Your task to perform on an android device: toggle pop-ups in chrome Image 0: 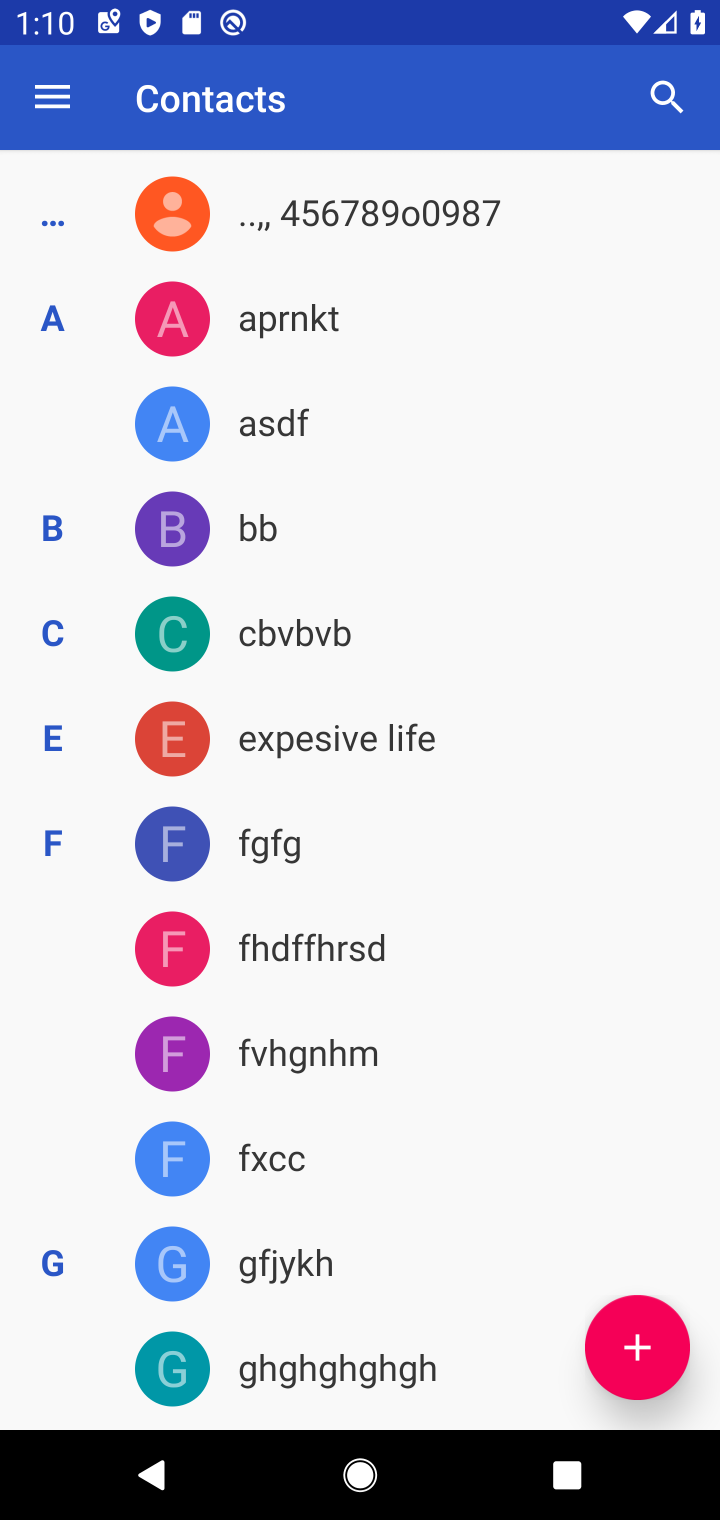
Step 0: press back button
Your task to perform on an android device: toggle pop-ups in chrome Image 1: 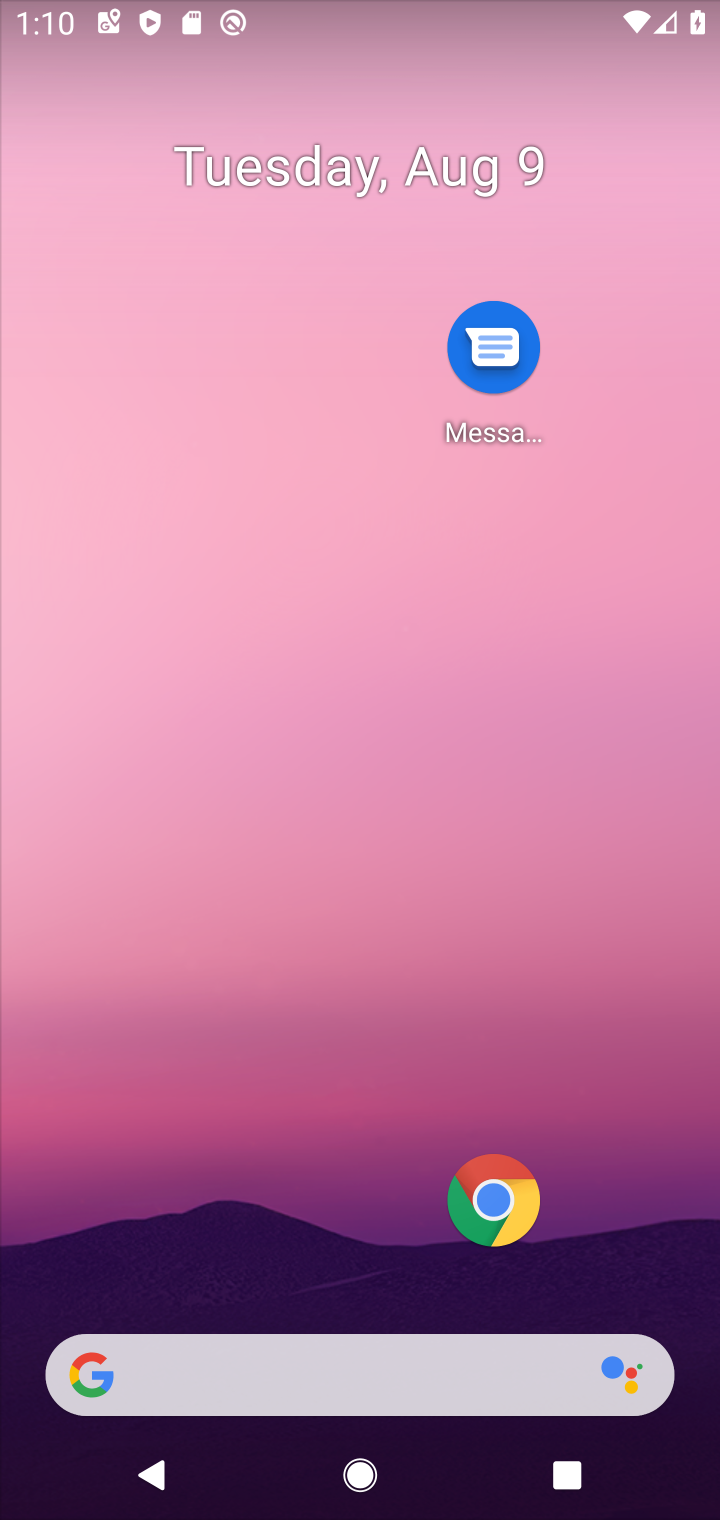
Step 1: click (509, 1226)
Your task to perform on an android device: toggle pop-ups in chrome Image 2: 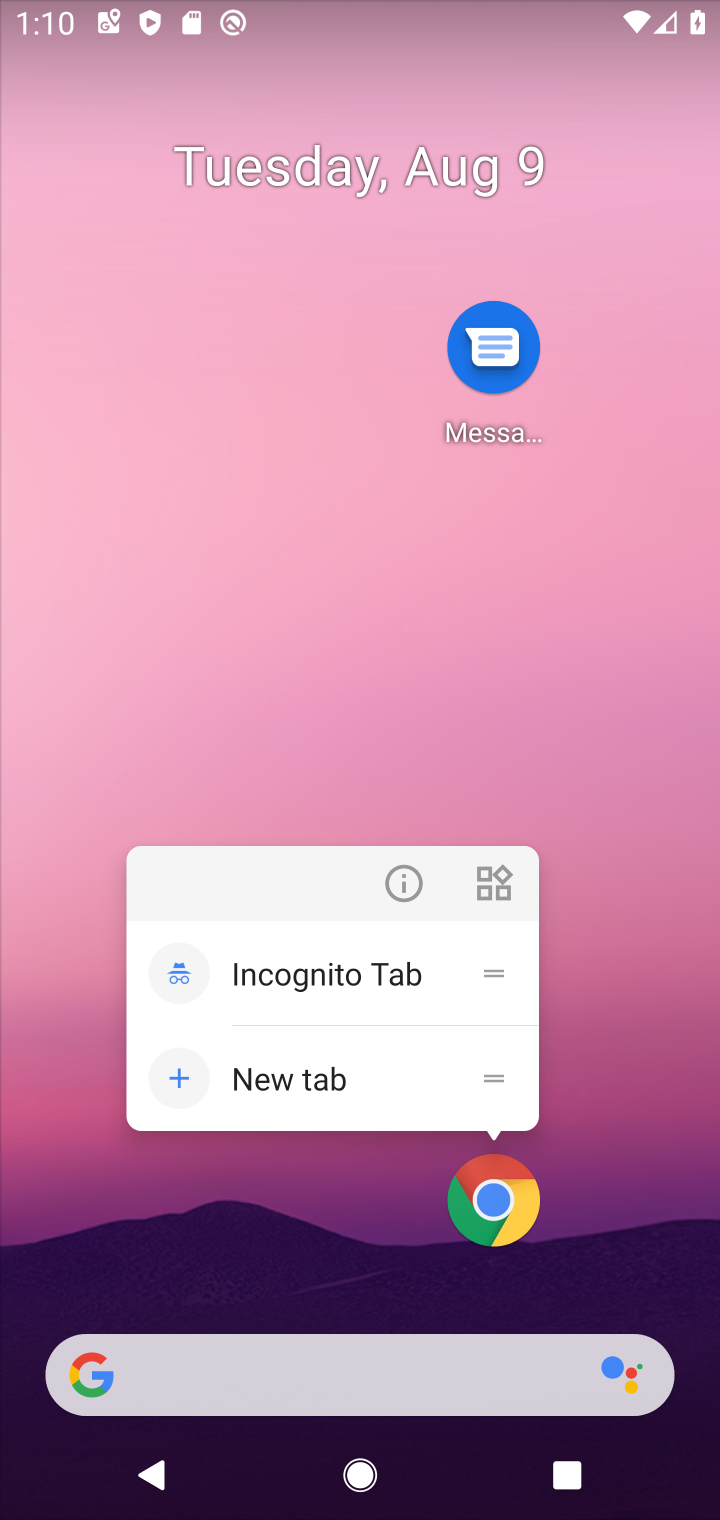
Step 2: click (477, 1198)
Your task to perform on an android device: toggle pop-ups in chrome Image 3: 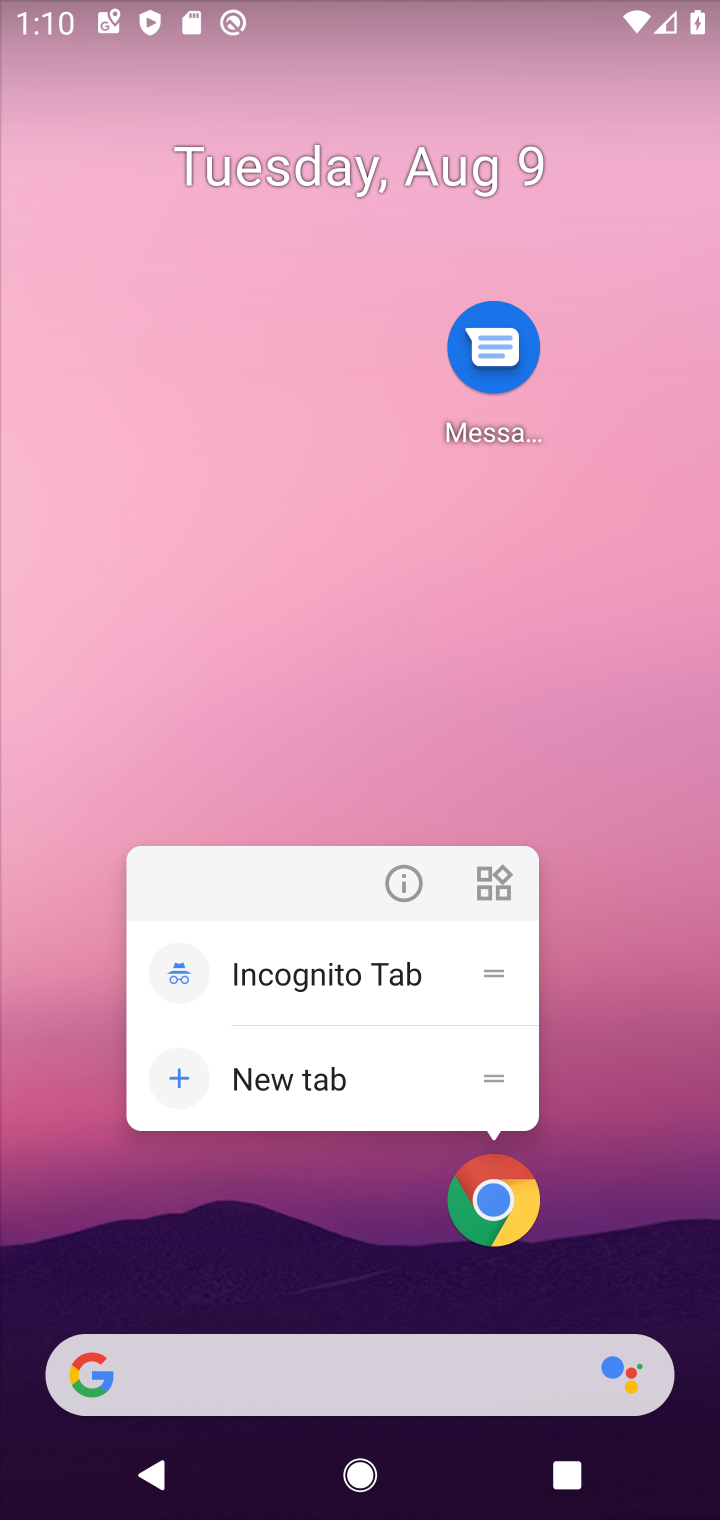
Step 3: click (501, 1206)
Your task to perform on an android device: toggle pop-ups in chrome Image 4: 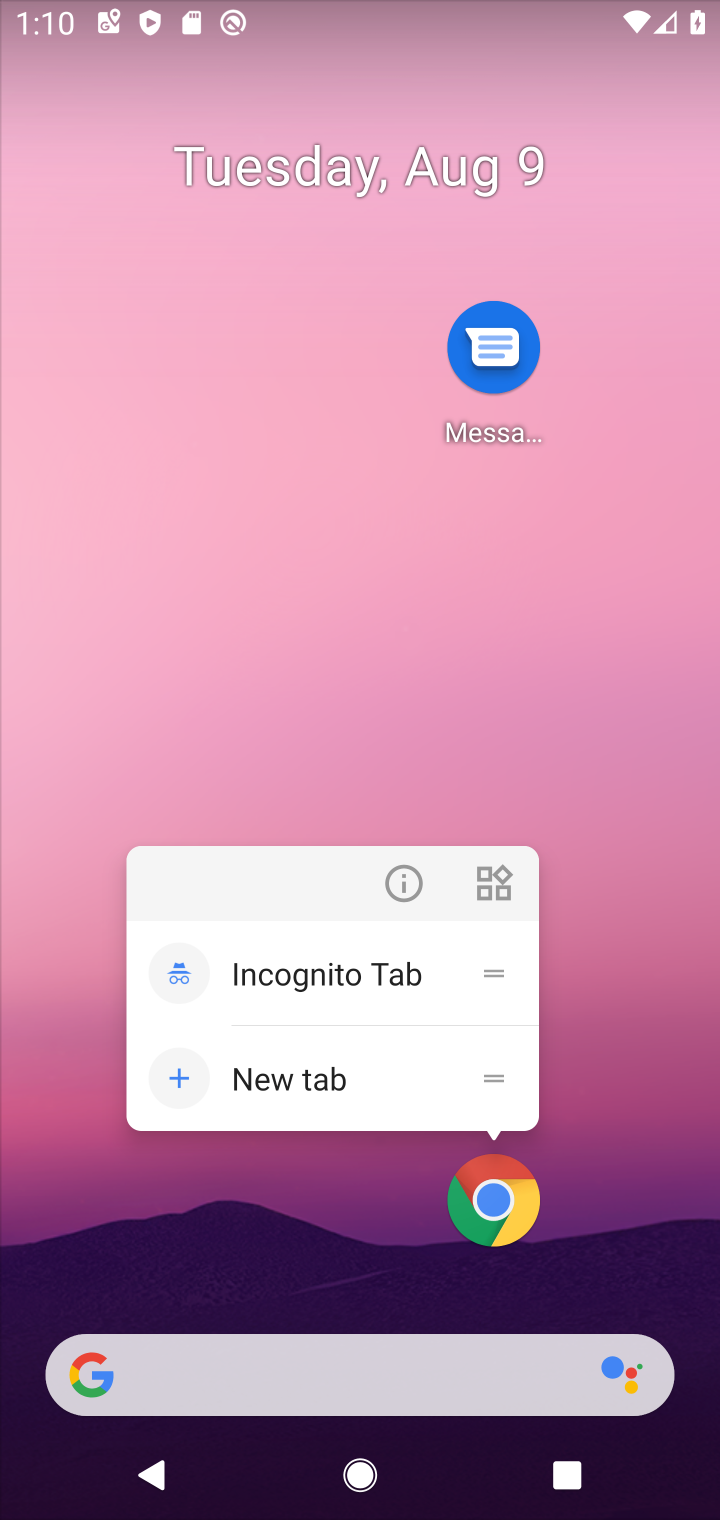
Step 4: click (501, 1206)
Your task to perform on an android device: toggle pop-ups in chrome Image 5: 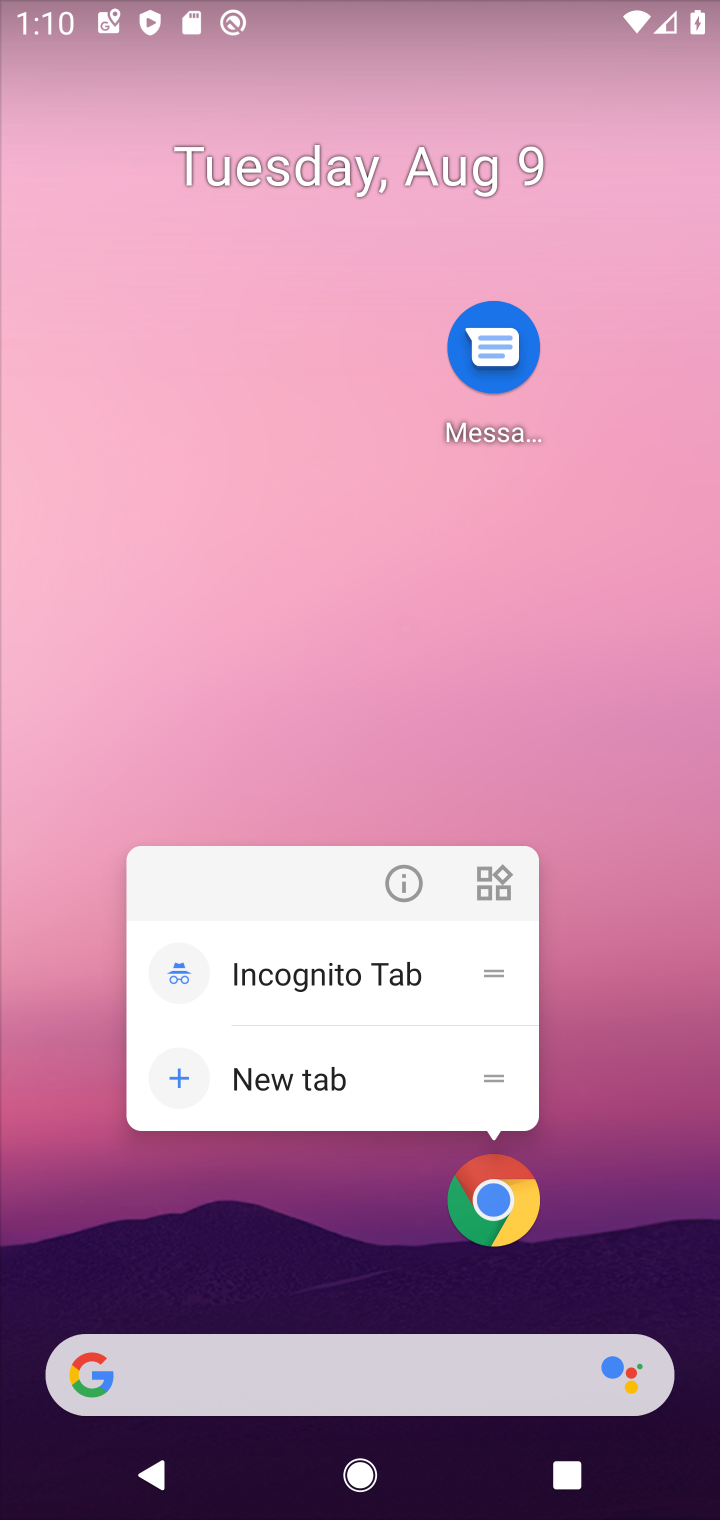
Step 5: click (491, 1197)
Your task to perform on an android device: toggle pop-ups in chrome Image 6: 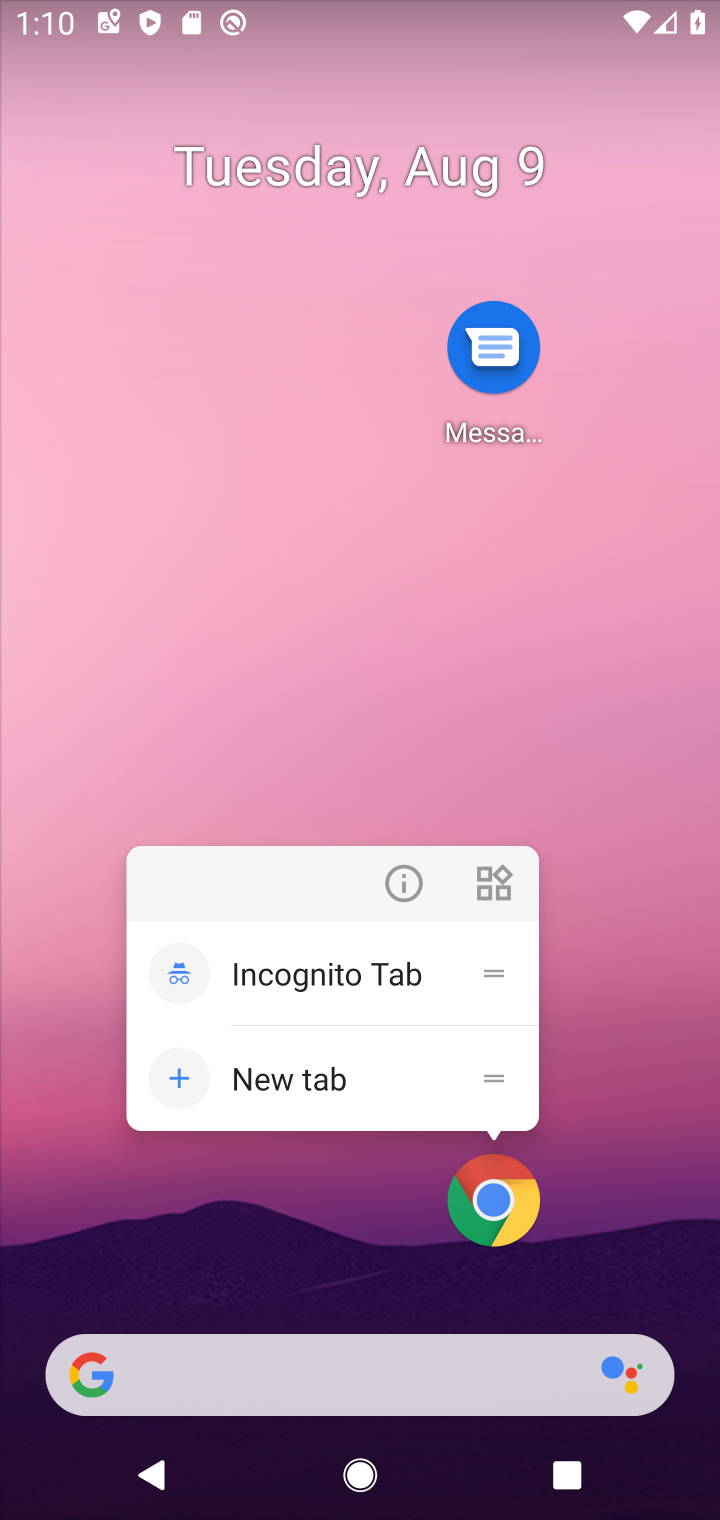
Step 6: click (501, 1199)
Your task to perform on an android device: toggle pop-ups in chrome Image 7: 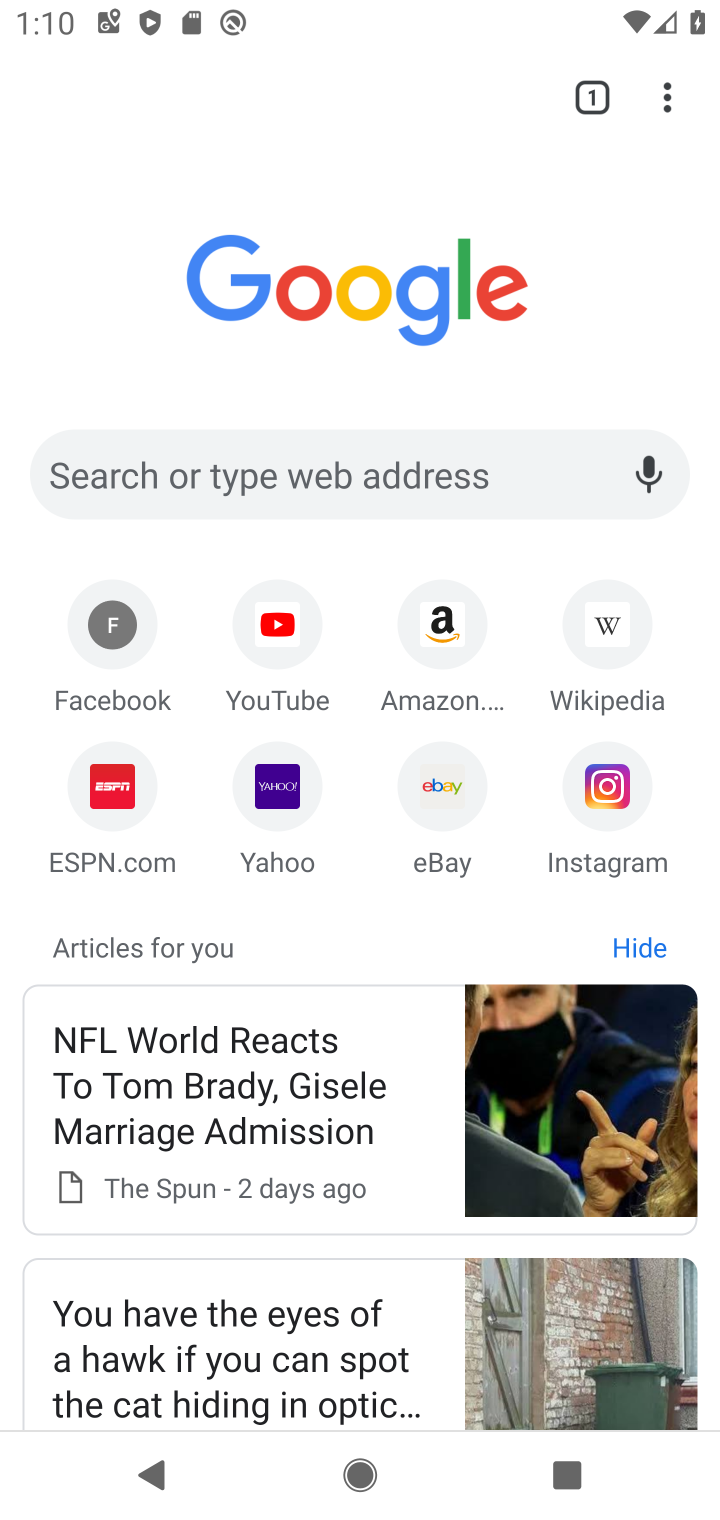
Step 7: drag from (669, 88) to (316, 807)
Your task to perform on an android device: toggle pop-ups in chrome Image 8: 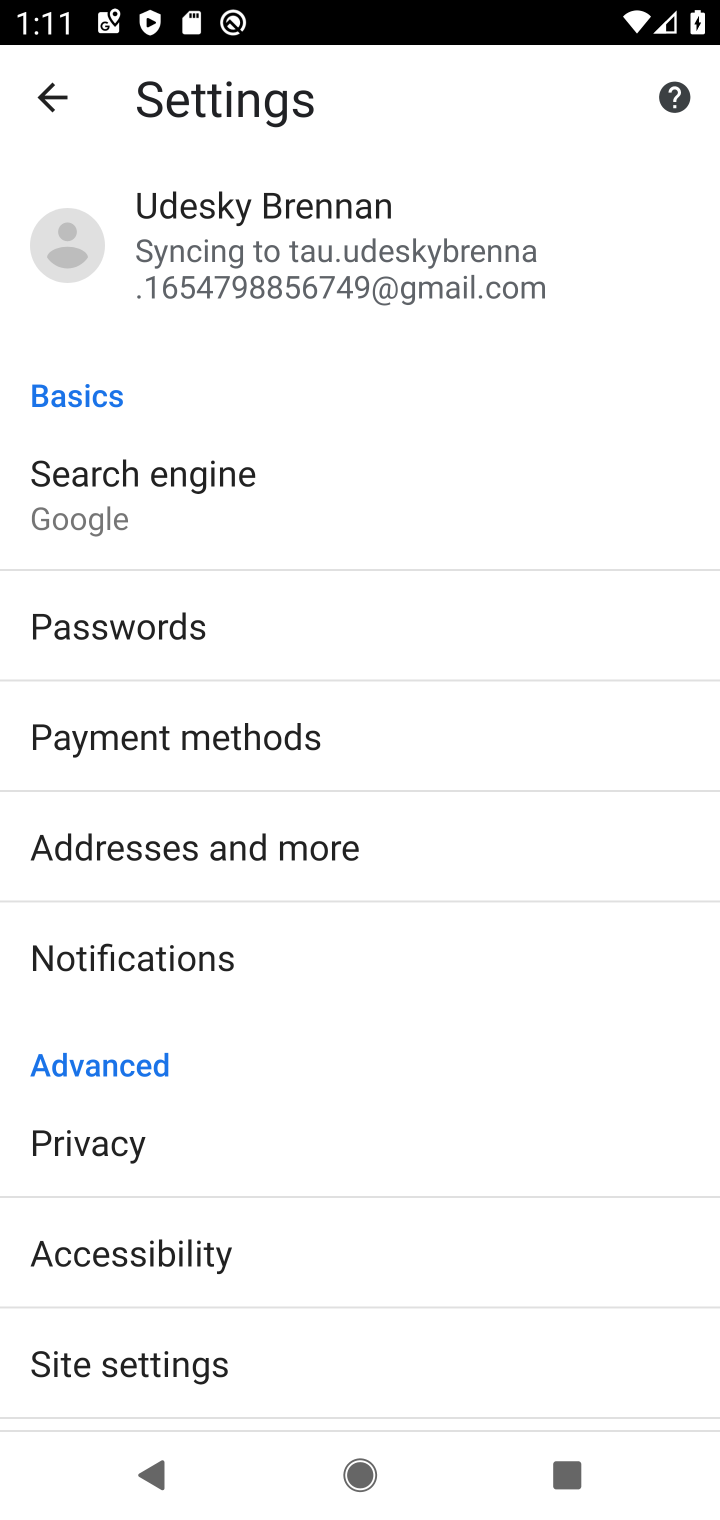
Step 8: click (207, 1363)
Your task to perform on an android device: toggle pop-ups in chrome Image 9: 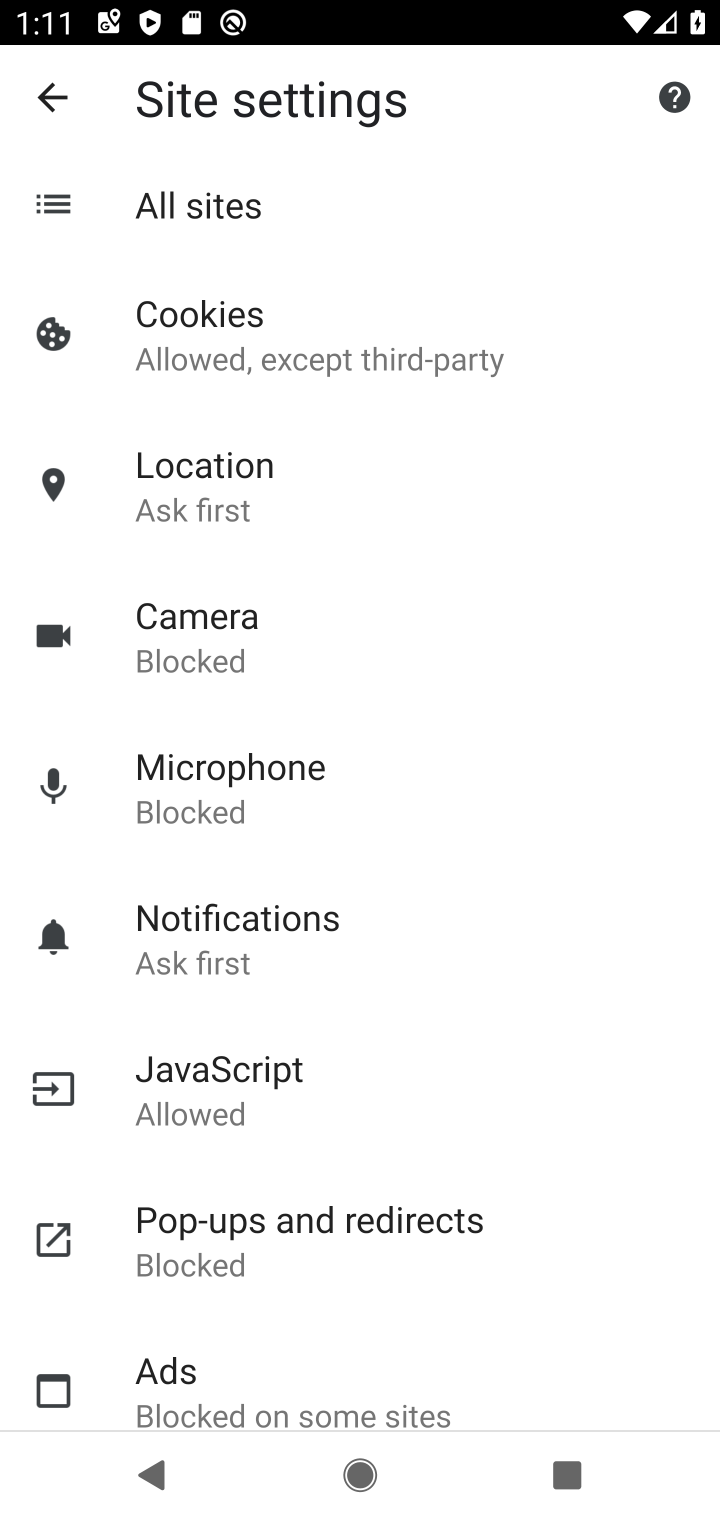
Step 9: click (251, 1265)
Your task to perform on an android device: toggle pop-ups in chrome Image 10: 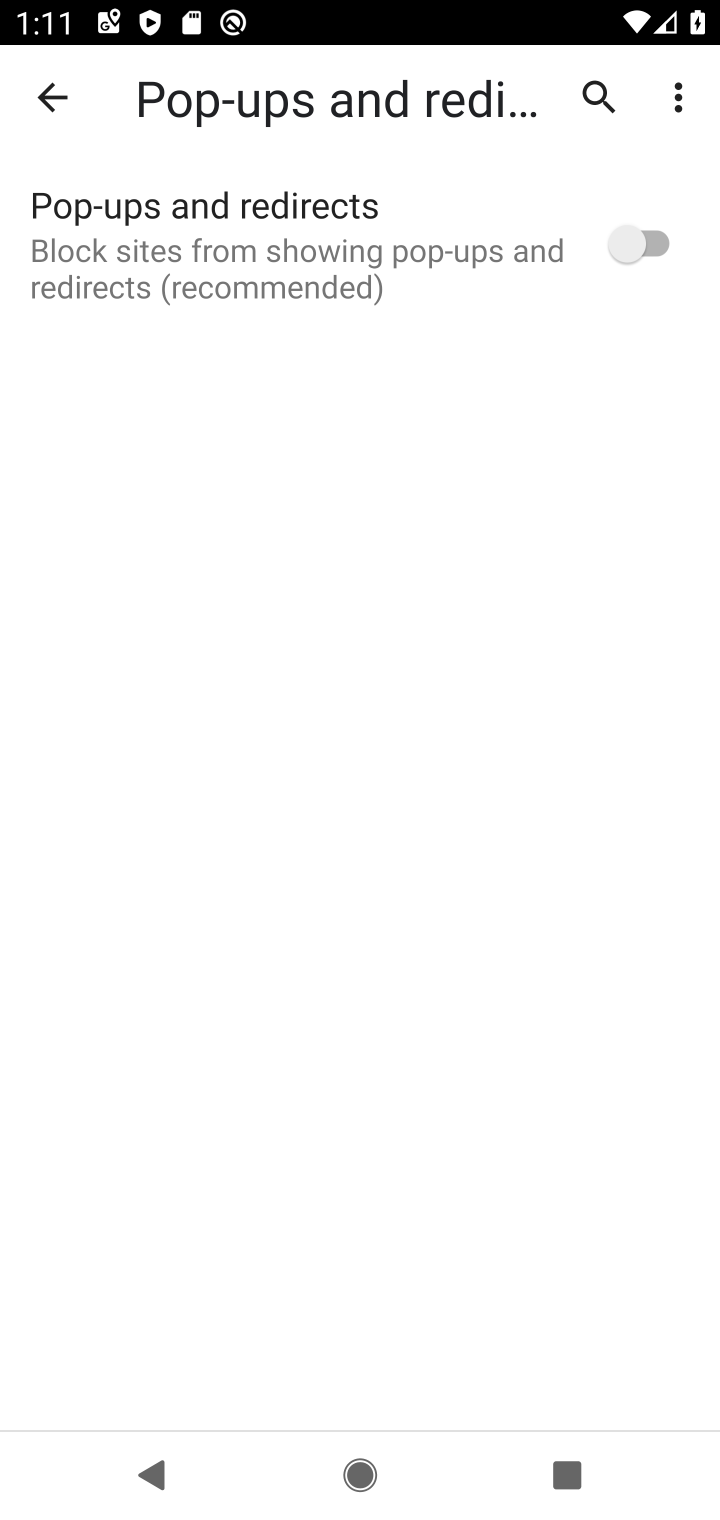
Step 10: click (627, 258)
Your task to perform on an android device: toggle pop-ups in chrome Image 11: 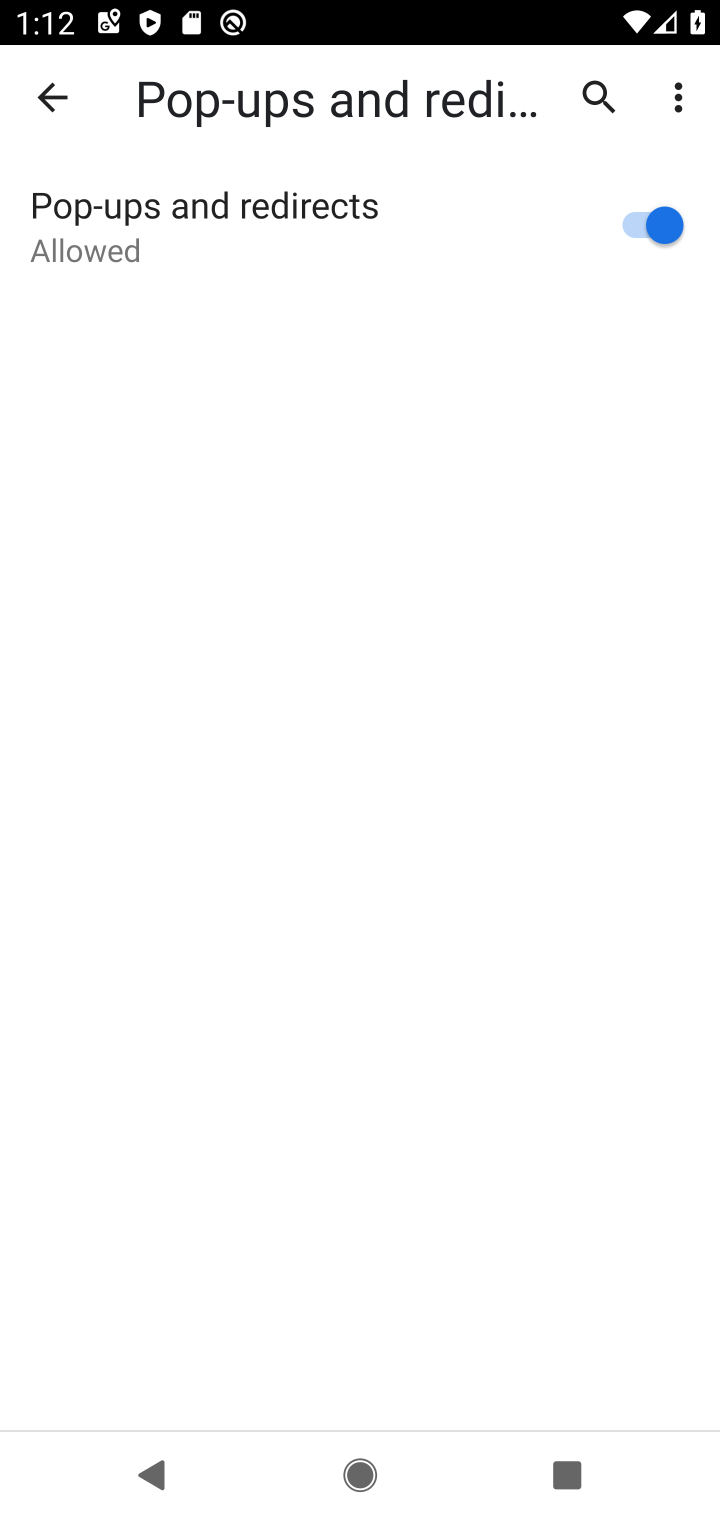
Step 11: task complete